Your task to perform on an android device: Open privacy settings Image 0: 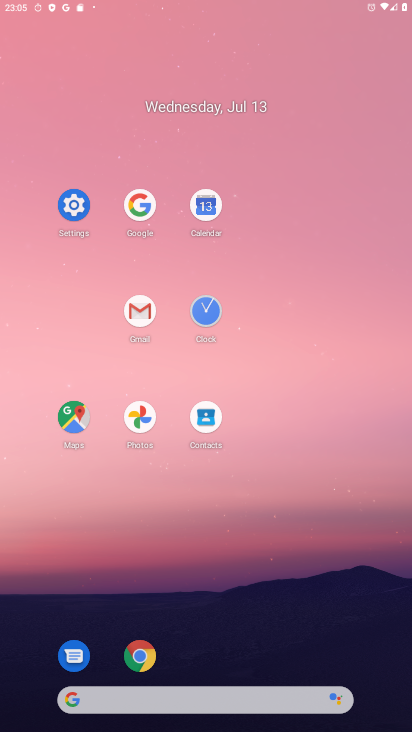
Step 0: click (78, 205)
Your task to perform on an android device: Open privacy settings Image 1: 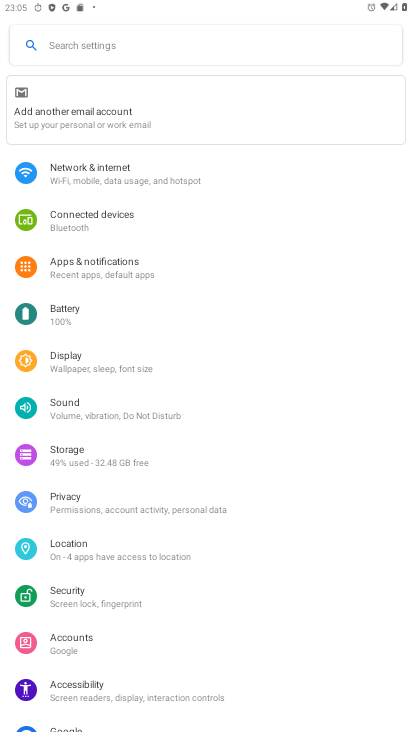
Step 1: click (111, 500)
Your task to perform on an android device: Open privacy settings Image 2: 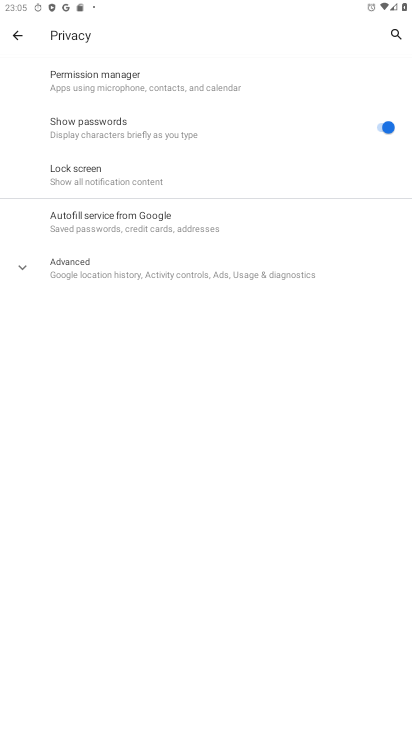
Step 2: task complete